Your task to perform on an android device: Show me recent news Image 0: 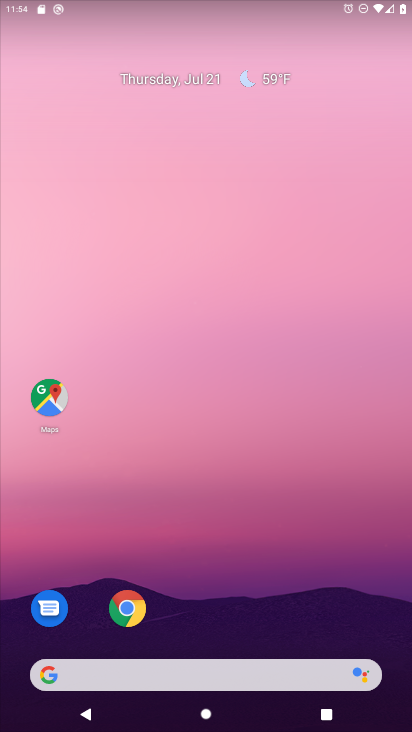
Step 0: drag from (375, 625) to (295, 21)
Your task to perform on an android device: Show me recent news Image 1: 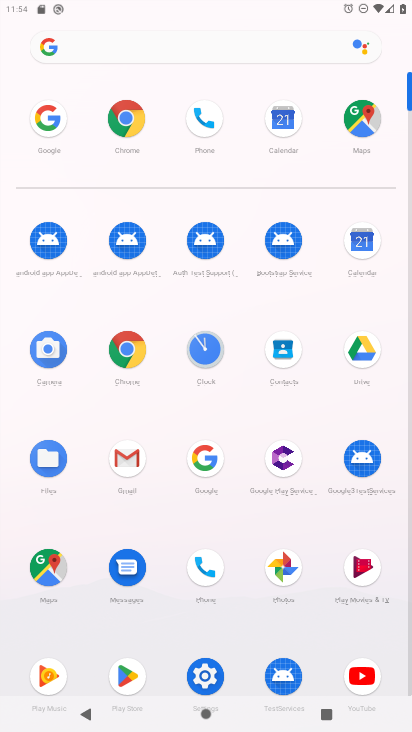
Step 1: click (202, 455)
Your task to perform on an android device: Show me recent news Image 2: 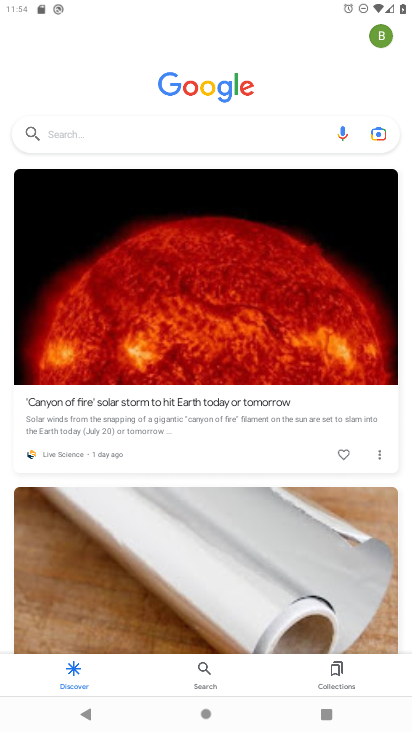
Step 2: click (115, 140)
Your task to perform on an android device: Show me recent news Image 3: 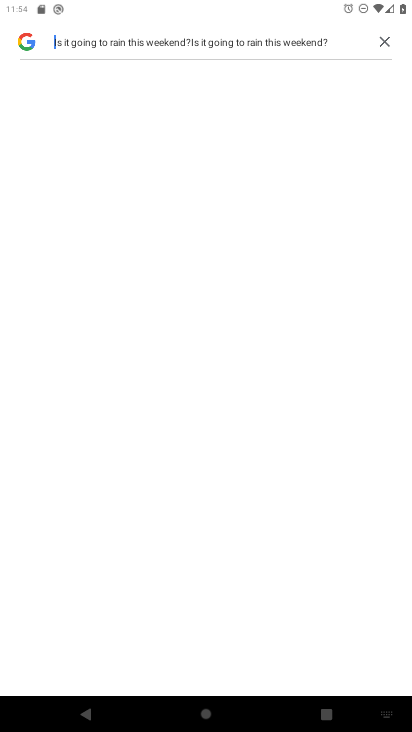
Step 3: click (384, 39)
Your task to perform on an android device: Show me recent news Image 4: 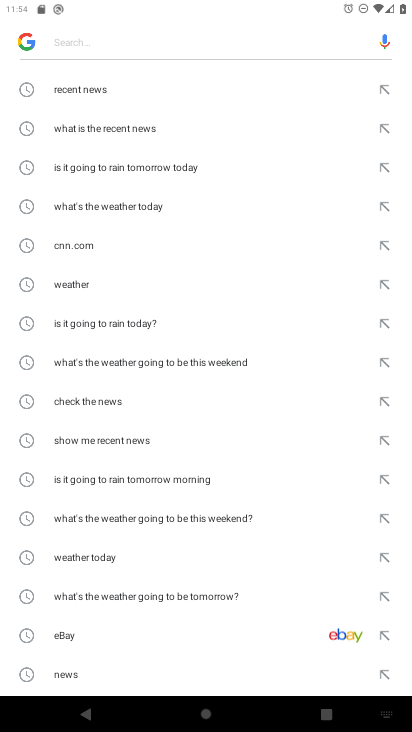
Step 4: type "Show me recent news"
Your task to perform on an android device: Show me recent news Image 5: 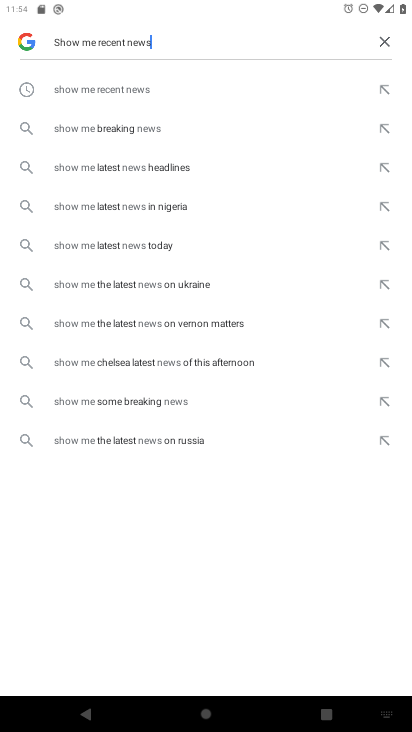
Step 5: click (93, 87)
Your task to perform on an android device: Show me recent news Image 6: 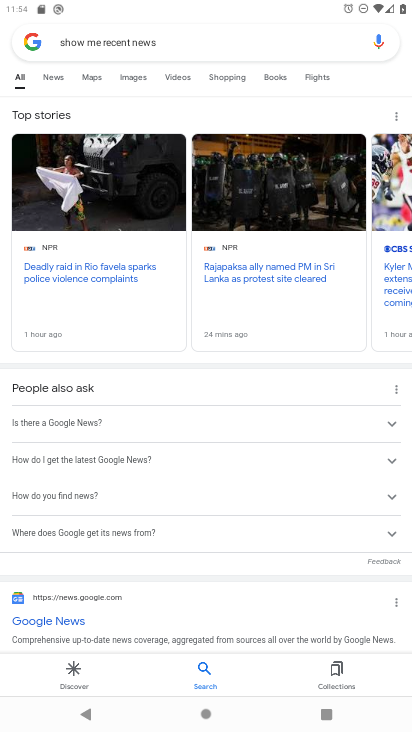
Step 6: task complete